Your task to perform on an android device: change text size in settings app Image 0: 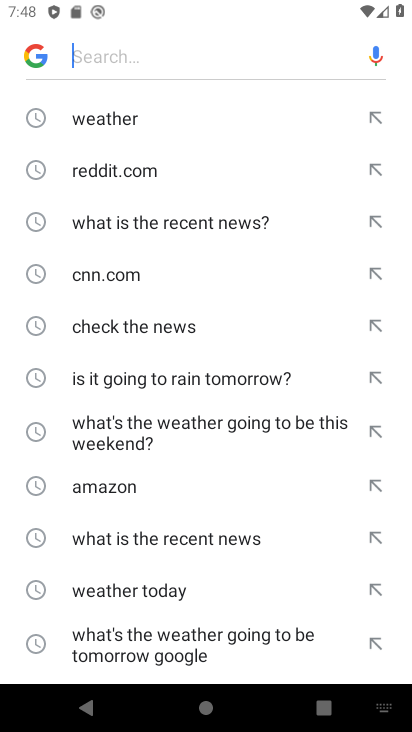
Step 0: press home button
Your task to perform on an android device: change text size in settings app Image 1: 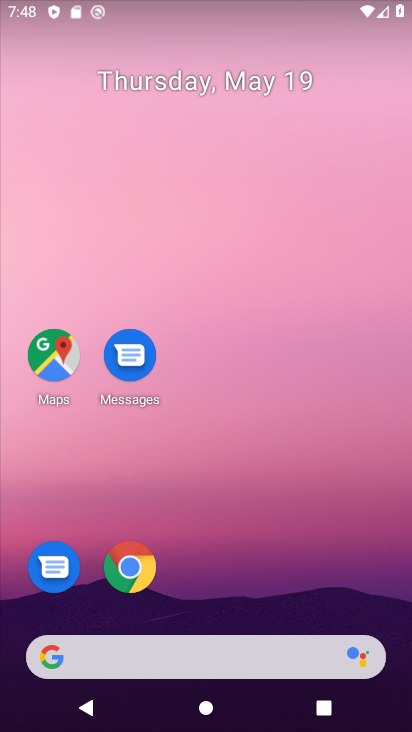
Step 1: drag from (207, 619) to (175, 110)
Your task to perform on an android device: change text size in settings app Image 2: 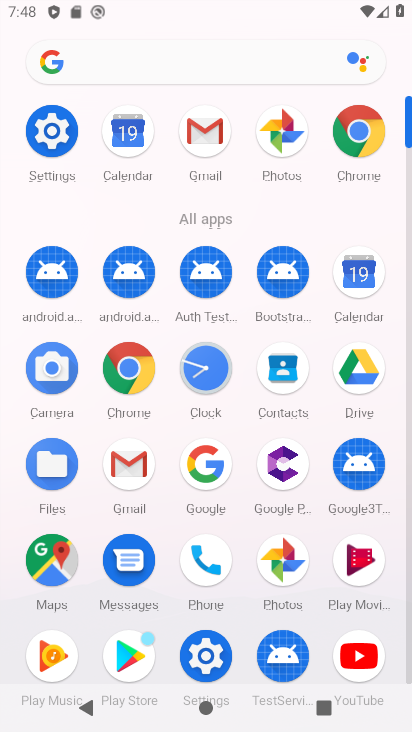
Step 2: click (50, 126)
Your task to perform on an android device: change text size in settings app Image 3: 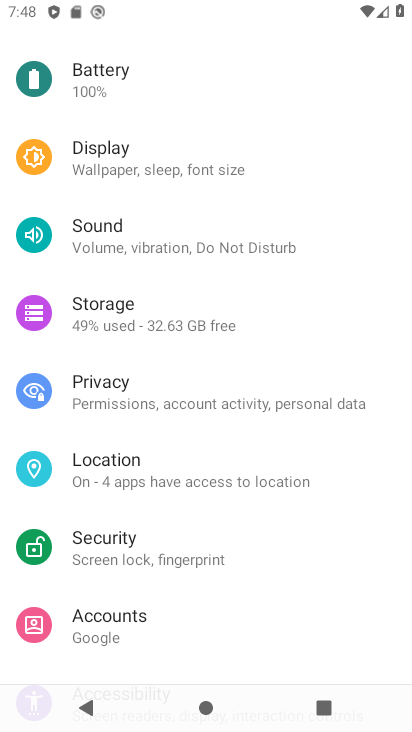
Step 3: click (113, 137)
Your task to perform on an android device: change text size in settings app Image 4: 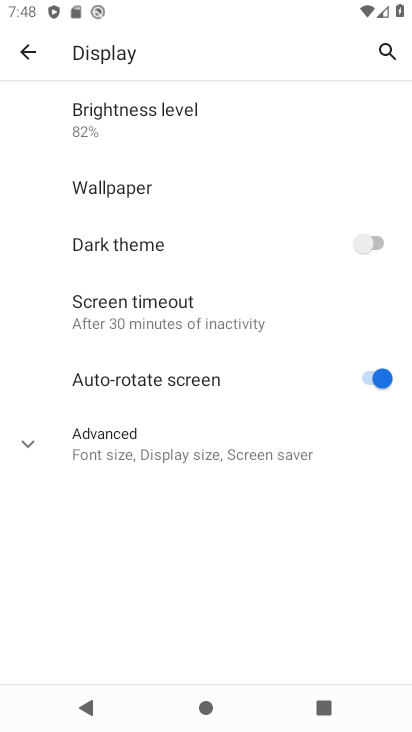
Step 4: click (154, 415)
Your task to perform on an android device: change text size in settings app Image 5: 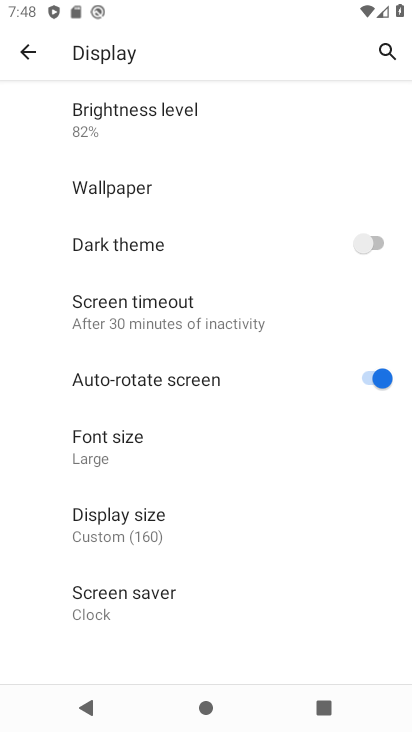
Step 5: click (119, 435)
Your task to perform on an android device: change text size in settings app Image 6: 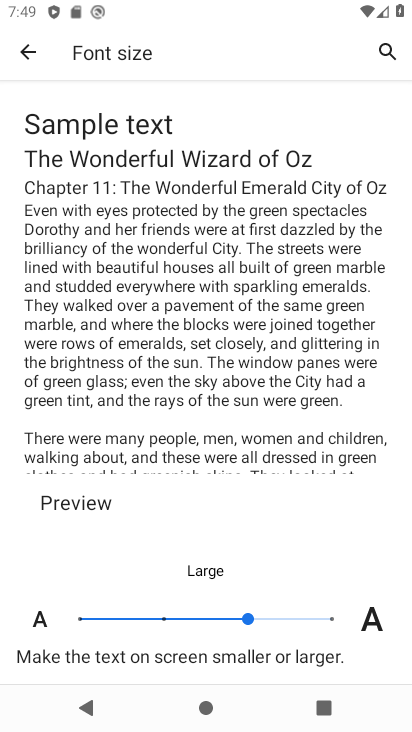
Step 6: click (161, 616)
Your task to perform on an android device: change text size in settings app Image 7: 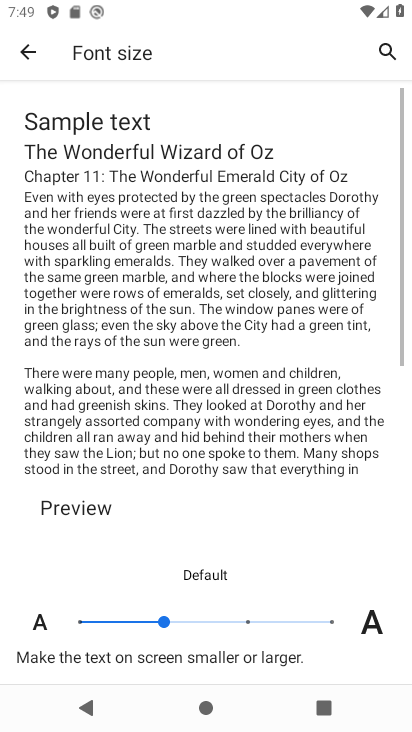
Step 7: task complete